Your task to perform on an android device: check storage Image 0: 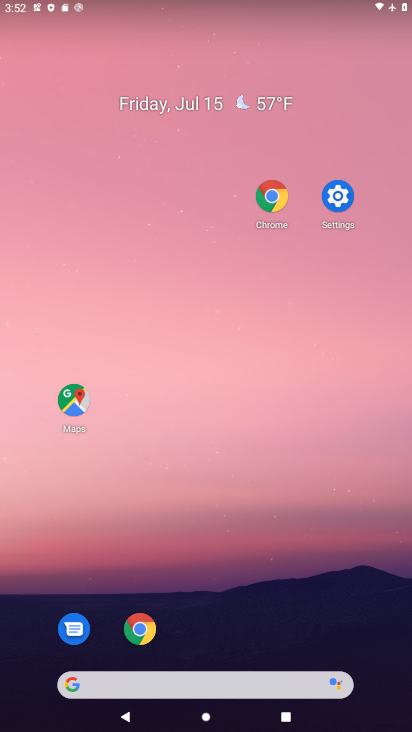
Step 0: drag from (249, 630) to (164, 11)
Your task to perform on an android device: check storage Image 1: 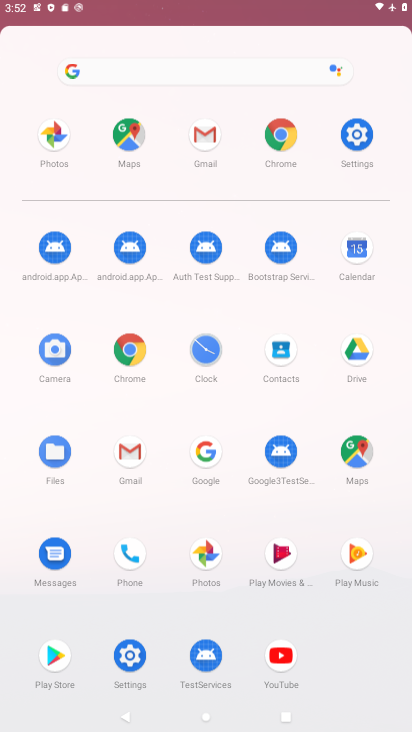
Step 1: drag from (199, 430) to (63, 3)
Your task to perform on an android device: check storage Image 2: 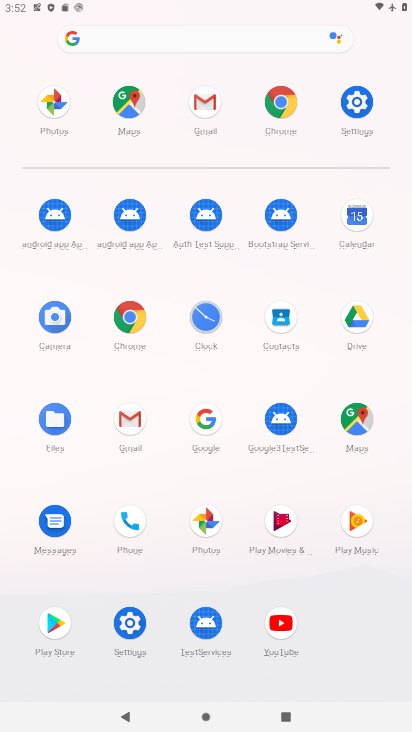
Step 2: click (130, 619)
Your task to perform on an android device: check storage Image 3: 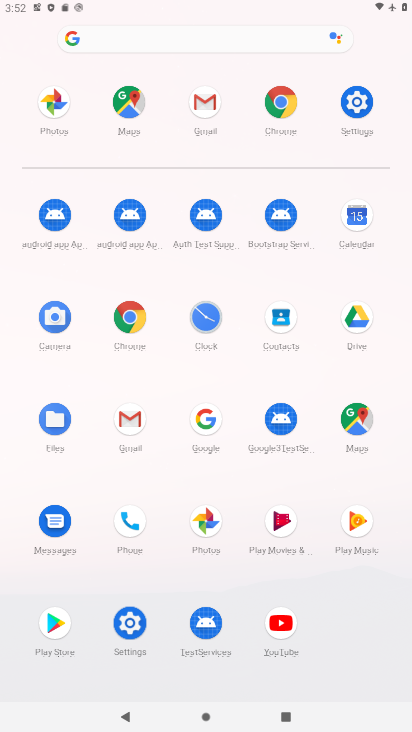
Step 3: click (130, 619)
Your task to perform on an android device: check storage Image 4: 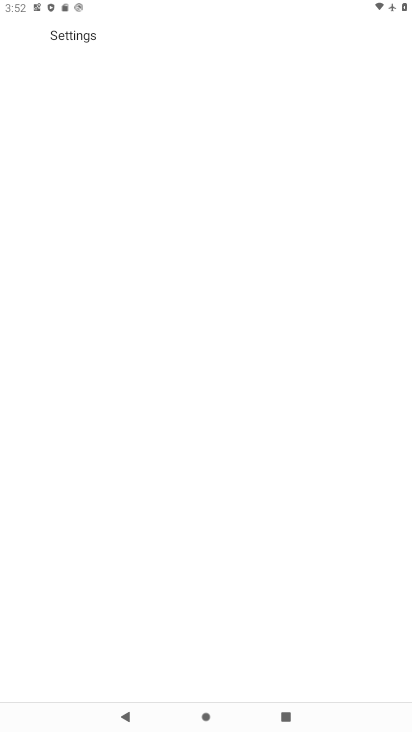
Step 4: click (130, 619)
Your task to perform on an android device: check storage Image 5: 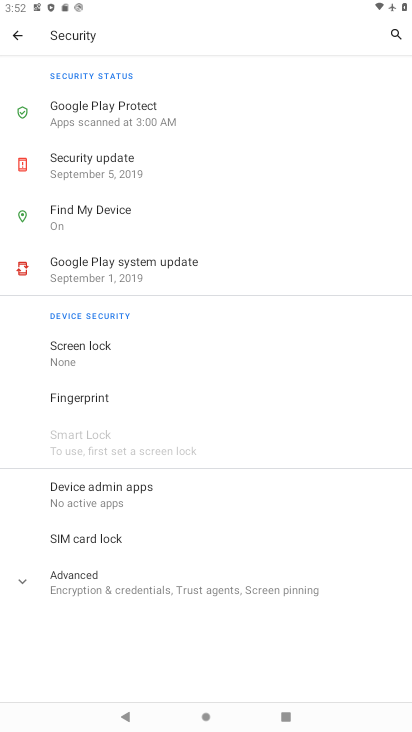
Step 5: click (19, 36)
Your task to perform on an android device: check storage Image 6: 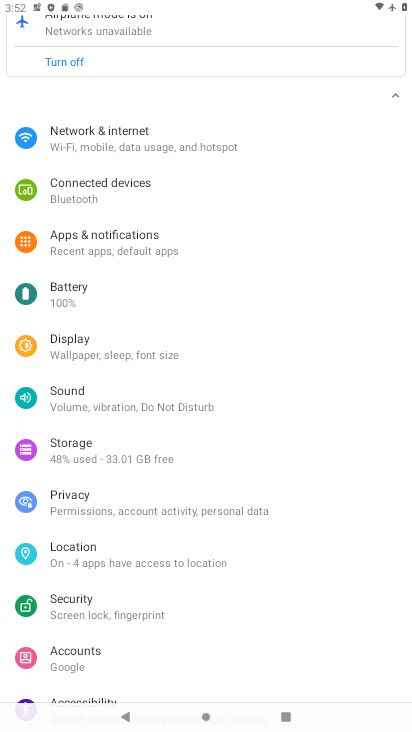
Step 6: click (86, 442)
Your task to perform on an android device: check storage Image 7: 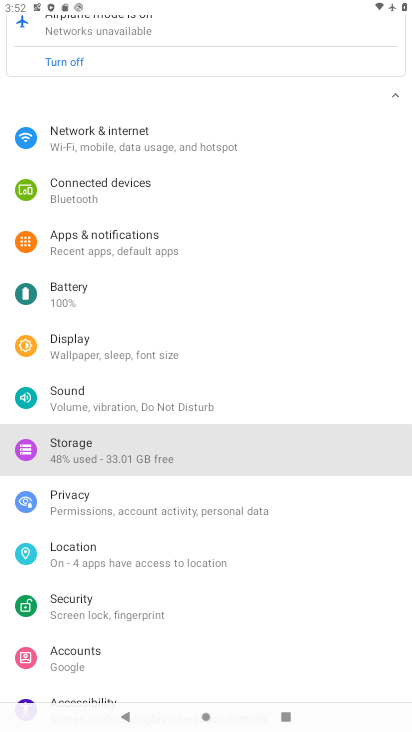
Step 7: click (83, 449)
Your task to perform on an android device: check storage Image 8: 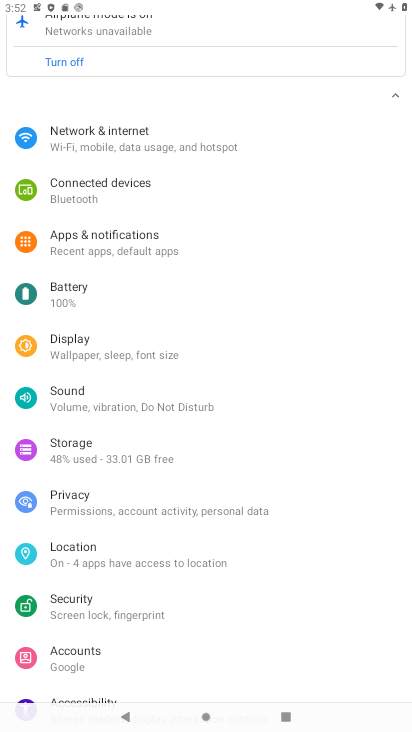
Step 8: click (84, 450)
Your task to perform on an android device: check storage Image 9: 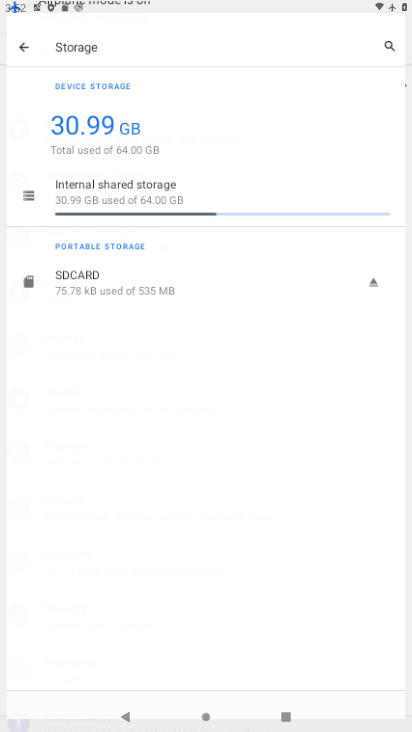
Step 9: click (84, 445)
Your task to perform on an android device: check storage Image 10: 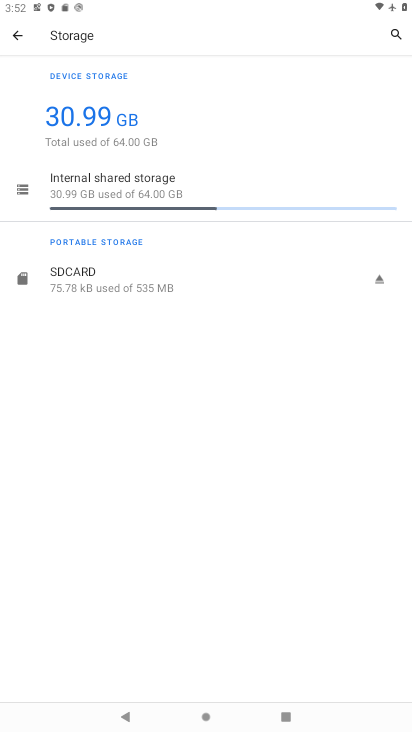
Step 10: task complete